Your task to perform on an android device: change notification settings in the gmail app Image 0: 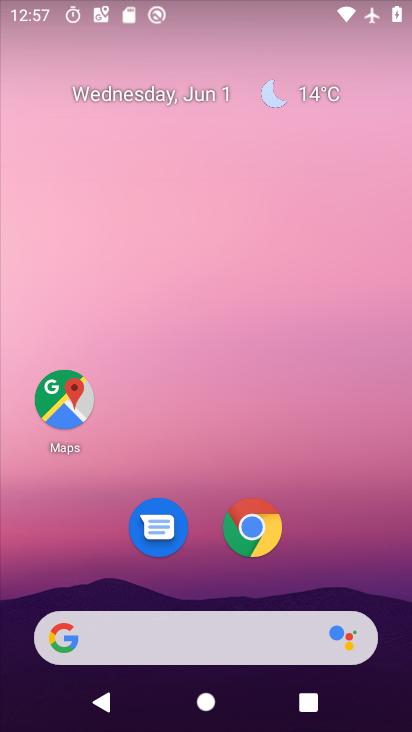
Step 0: drag from (365, 600) to (281, 6)
Your task to perform on an android device: change notification settings in the gmail app Image 1: 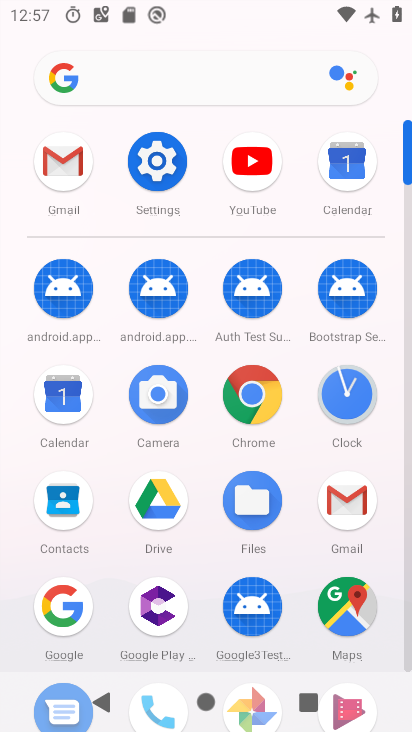
Step 1: click (65, 165)
Your task to perform on an android device: change notification settings in the gmail app Image 2: 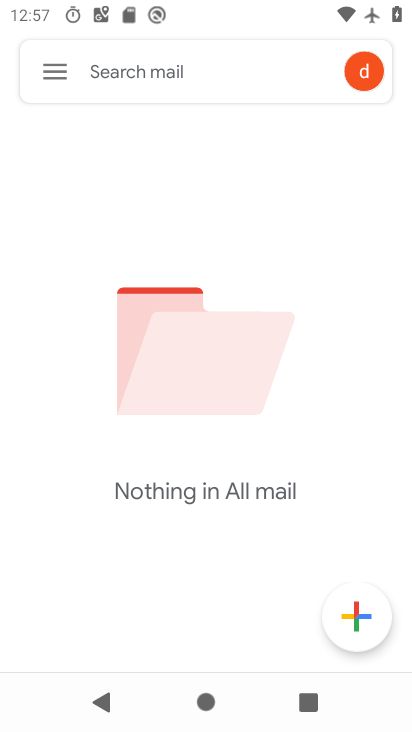
Step 2: click (50, 71)
Your task to perform on an android device: change notification settings in the gmail app Image 3: 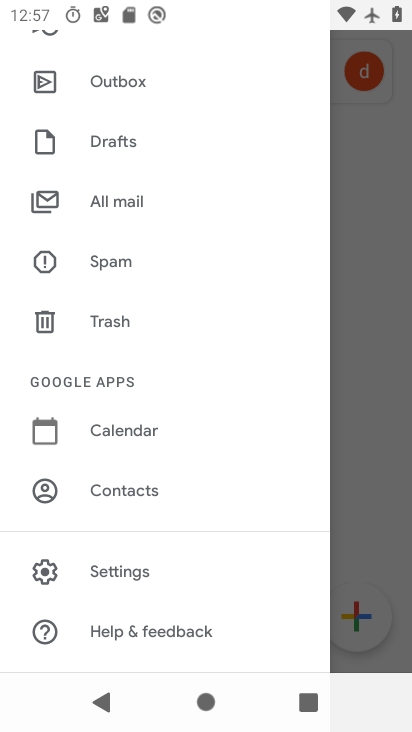
Step 3: click (126, 573)
Your task to perform on an android device: change notification settings in the gmail app Image 4: 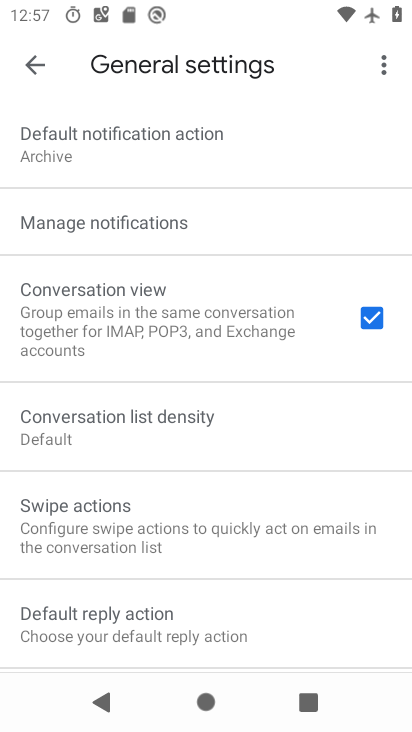
Step 4: click (91, 228)
Your task to perform on an android device: change notification settings in the gmail app Image 5: 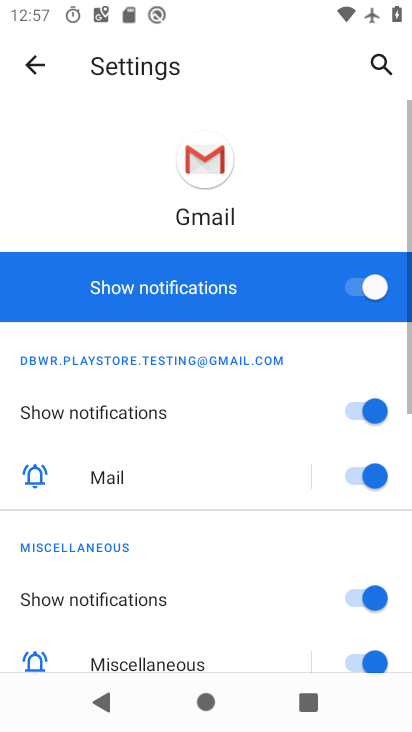
Step 5: click (384, 292)
Your task to perform on an android device: change notification settings in the gmail app Image 6: 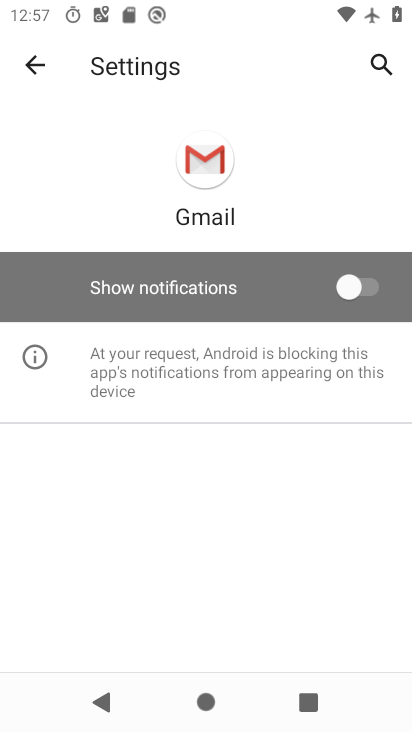
Step 6: task complete